Your task to perform on an android device: turn off improve location accuracy Image 0: 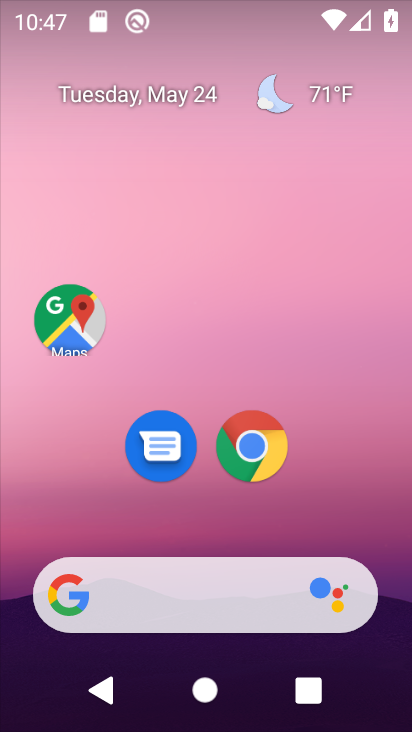
Step 0: drag from (242, 521) to (253, 147)
Your task to perform on an android device: turn off improve location accuracy Image 1: 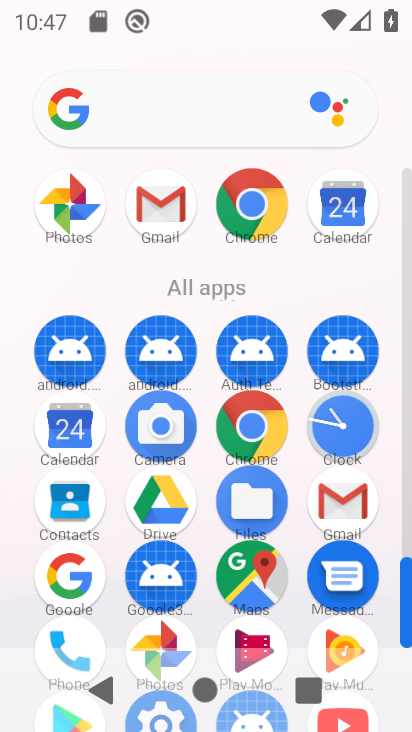
Step 1: drag from (190, 279) to (208, 93)
Your task to perform on an android device: turn off improve location accuracy Image 2: 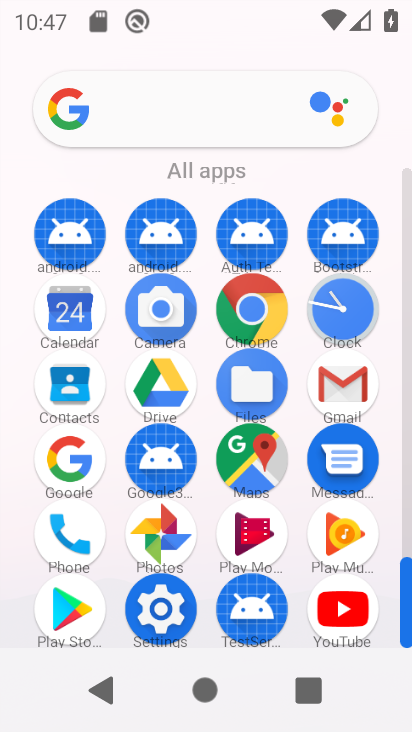
Step 2: click (174, 615)
Your task to perform on an android device: turn off improve location accuracy Image 3: 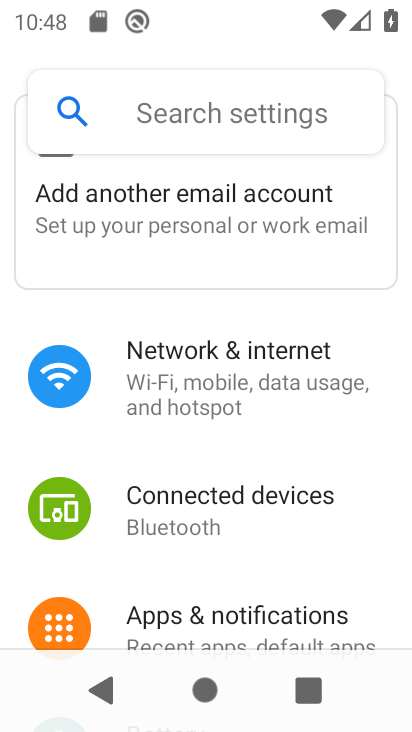
Step 3: drag from (180, 534) to (221, 213)
Your task to perform on an android device: turn off improve location accuracy Image 4: 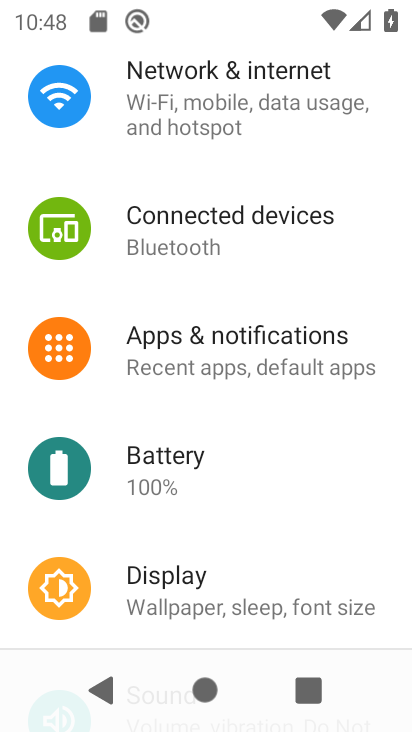
Step 4: drag from (218, 514) to (218, 204)
Your task to perform on an android device: turn off improve location accuracy Image 5: 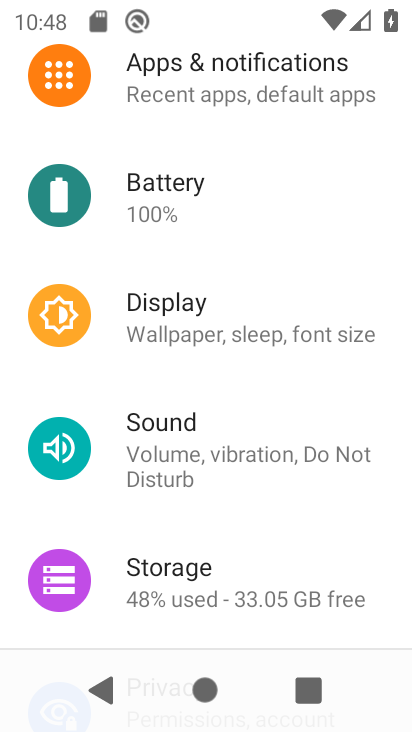
Step 5: drag from (188, 539) to (225, 206)
Your task to perform on an android device: turn off improve location accuracy Image 6: 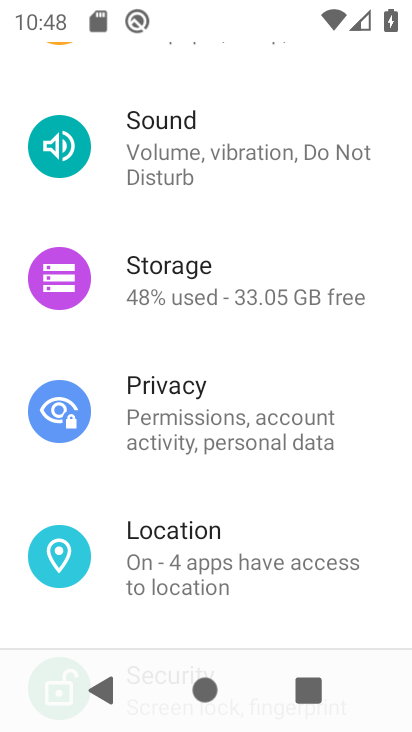
Step 6: click (199, 549)
Your task to perform on an android device: turn off improve location accuracy Image 7: 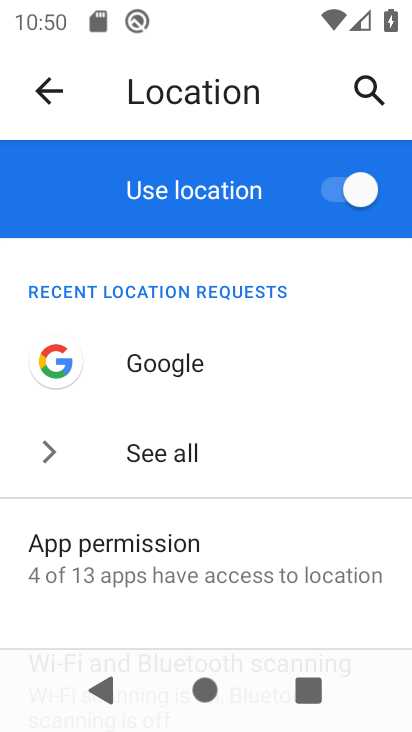
Step 7: drag from (194, 570) to (236, 204)
Your task to perform on an android device: turn off improve location accuracy Image 8: 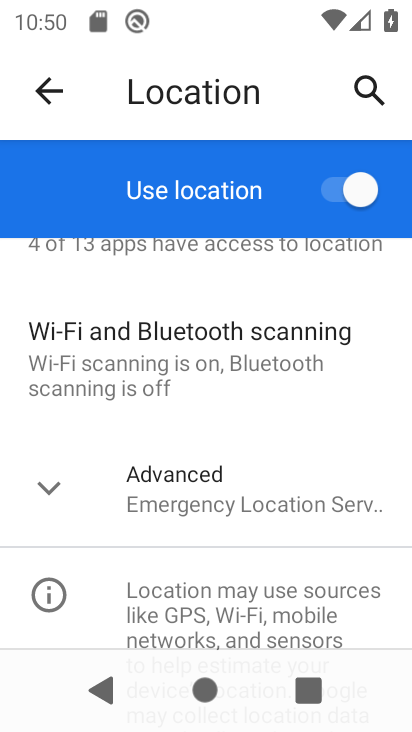
Step 8: click (195, 505)
Your task to perform on an android device: turn off improve location accuracy Image 9: 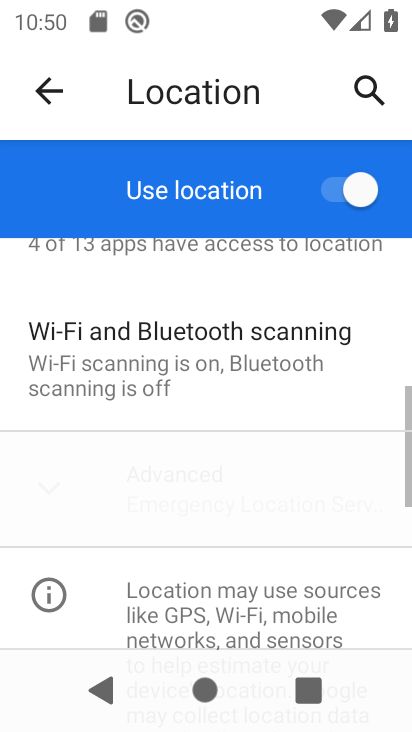
Step 9: drag from (197, 450) to (213, 160)
Your task to perform on an android device: turn off improve location accuracy Image 10: 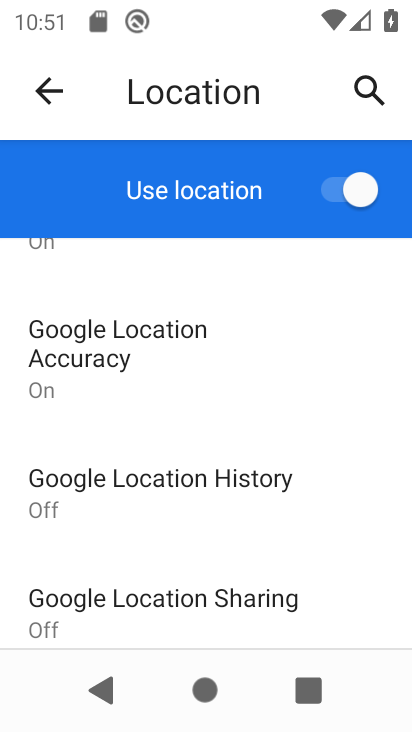
Step 10: click (189, 365)
Your task to perform on an android device: turn off improve location accuracy Image 11: 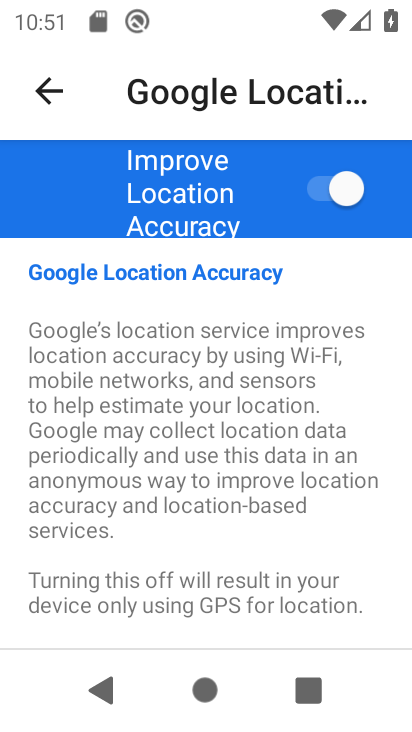
Step 11: click (351, 198)
Your task to perform on an android device: turn off improve location accuracy Image 12: 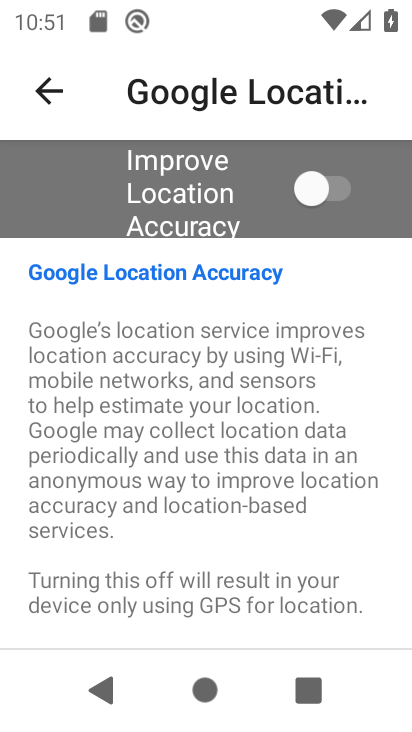
Step 12: task complete